Your task to perform on an android device: Turn off the flashlight Image 0: 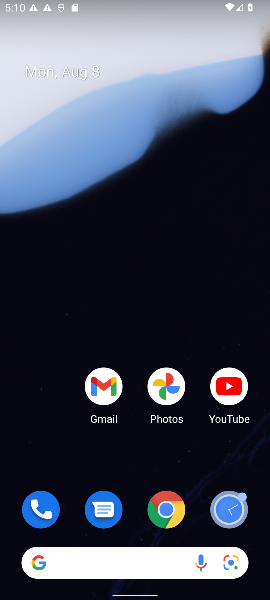
Step 0: drag from (132, 484) to (110, 40)
Your task to perform on an android device: Turn off the flashlight Image 1: 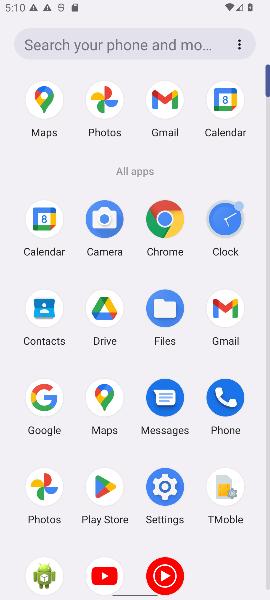
Step 1: click (163, 485)
Your task to perform on an android device: Turn off the flashlight Image 2: 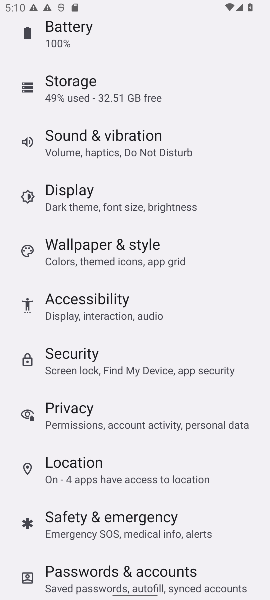
Step 2: click (80, 197)
Your task to perform on an android device: Turn off the flashlight Image 3: 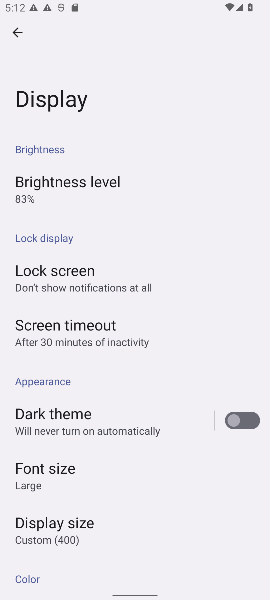
Step 3: task complete